Your task to perform on an android device: open app "Mercado Libre" (install if not already installed) and go to login screen Image 0: 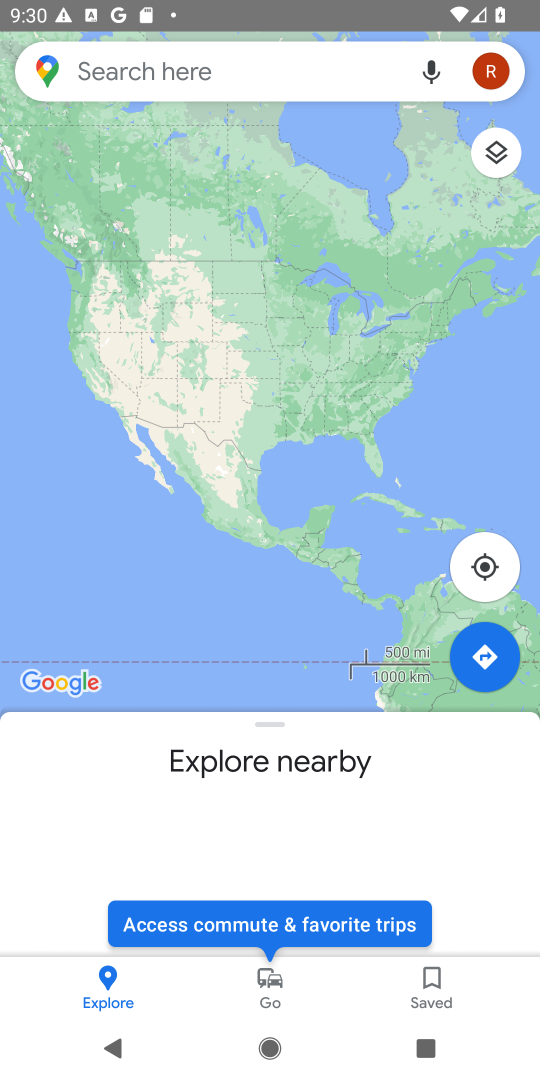
Step 0: press home button
Your task to perform on an android device: open app "Mercado Libre" (install if not already installed) and go to login screen Image 1: 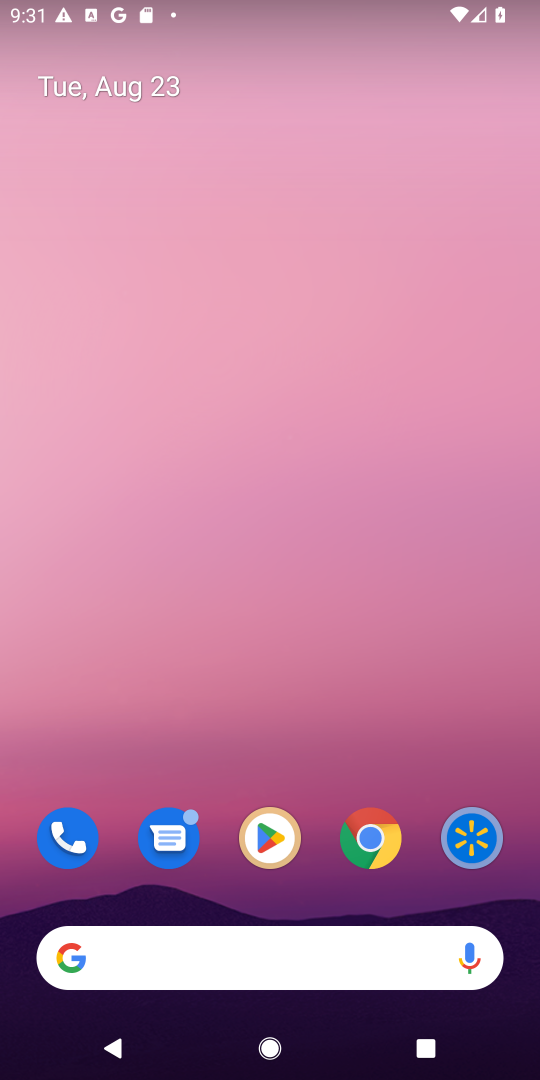
Step 1: click (266, 817)
Your task to perform on an android device: open app "Mercado Libre" (install if not already installed) and go to login screen Image 2: 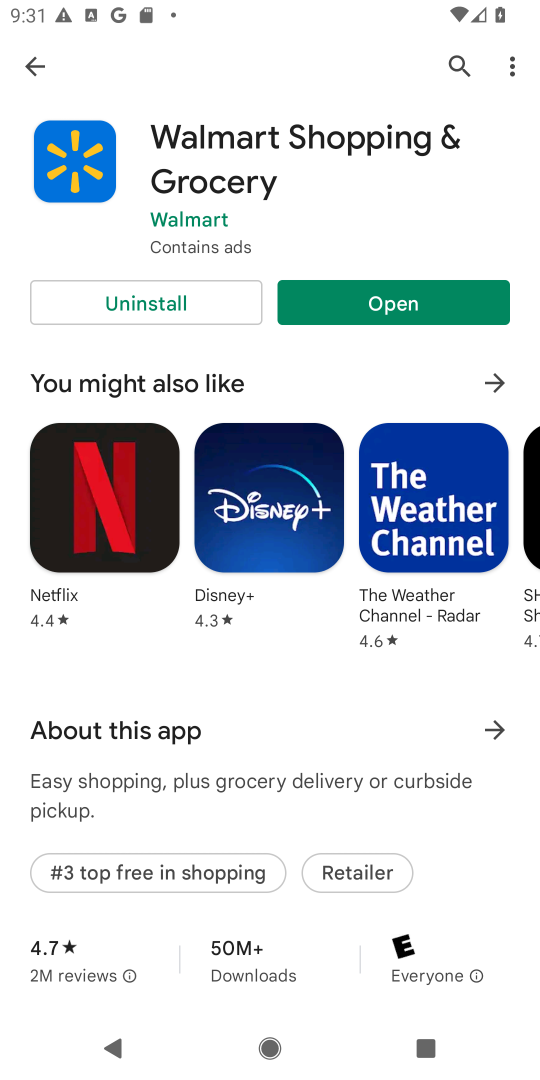
Step 2: click (471, 57)
Your task to perform on an android device: open app "Mercado Libre" (install if not already installed) and go to login screen Image 3: 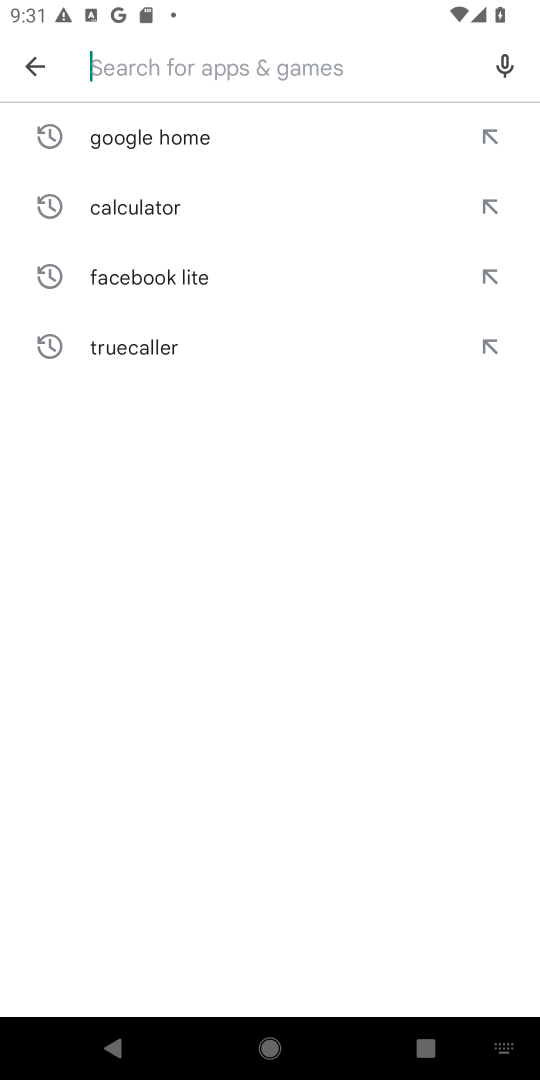
Step 3: type "Mercado Libre"
Your task to perform on an android device: open app "Mercado Libre" (install if not already installed) and go to login screen Image 4: 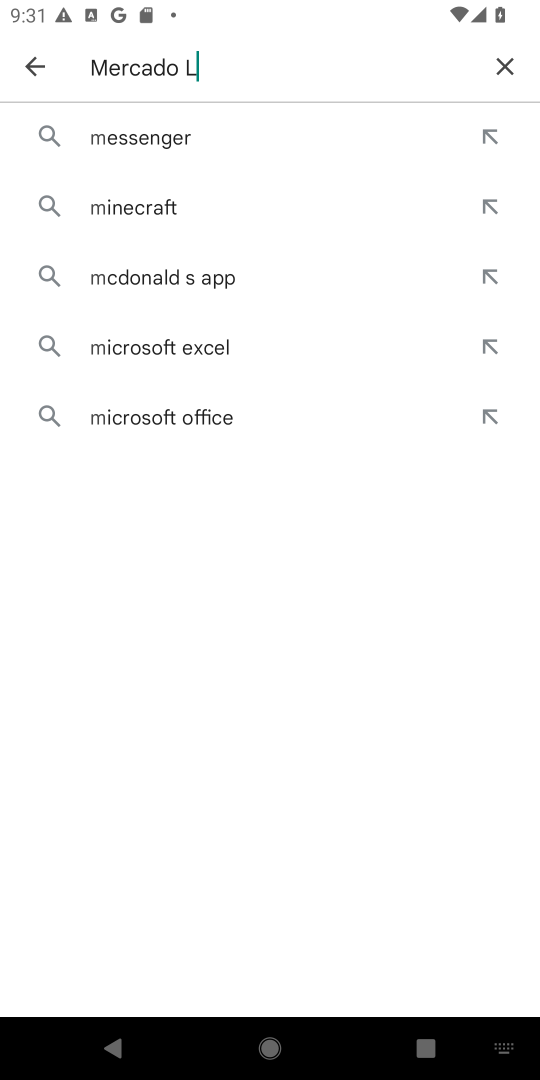
Step 4: type ""
Your task to perform on an android device: open app "Mercado Libre" (install if not already installed) and go to login screen Image 5: 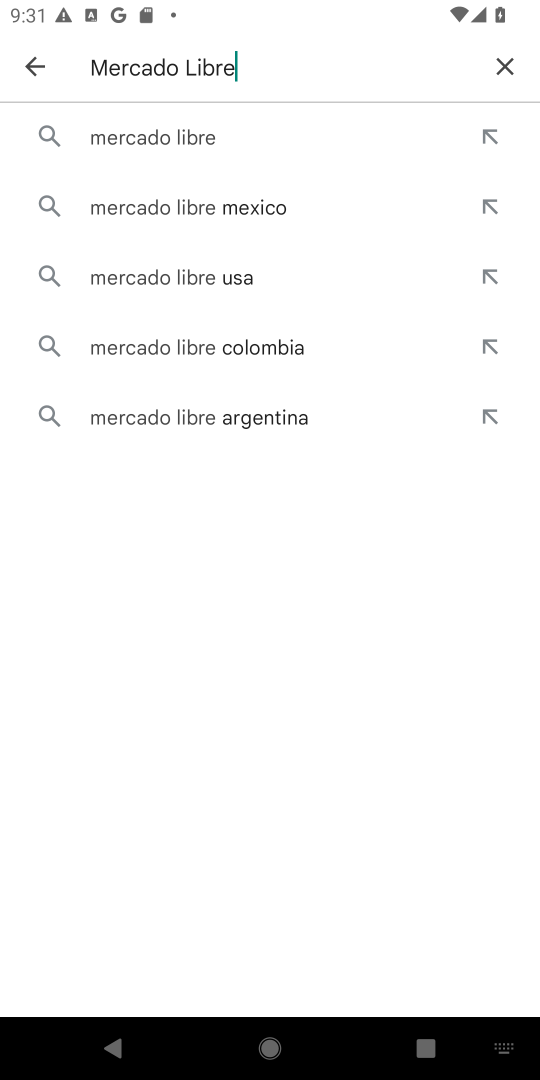
Step 5: click (282, 128)
Your task to perform on an android device: open app "Mercado Libre" (install if not already installed) and go to login screen Image 6: 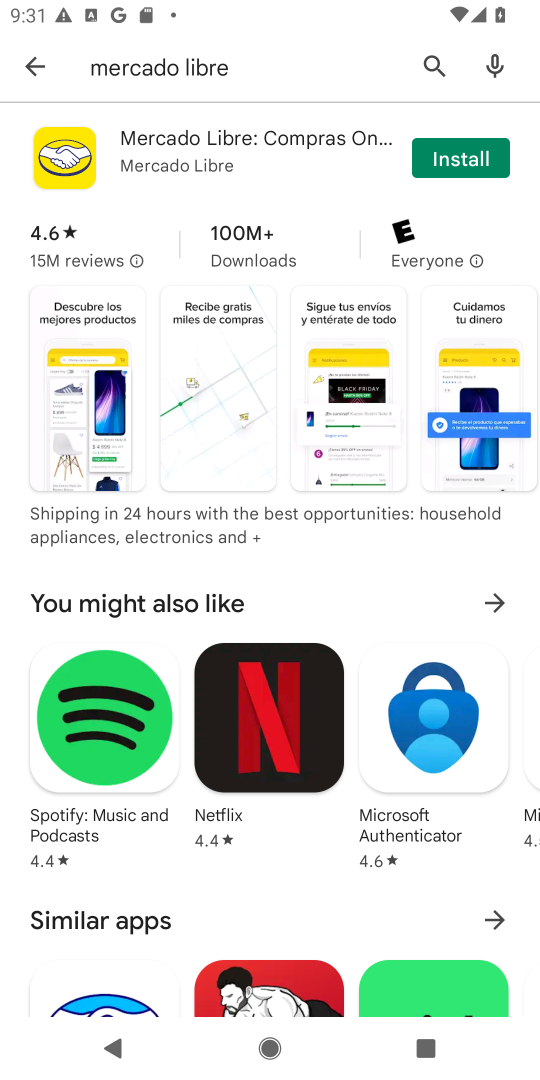
Step 6: click (456, 153)
Your task to perform on an android device: open app "Mercado Libre" (install if not already installed) and go to login screen Image 7: 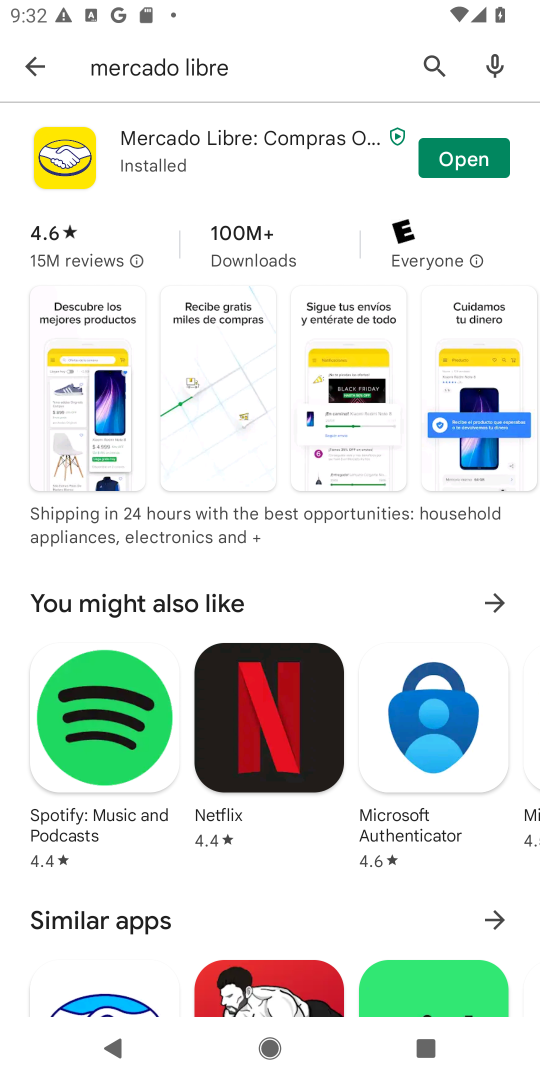
Step 7: click (444, 167)
Your task to perform on an android device: open app "Mercado Libre" (install if not already installed) and go to login screen Image 8: 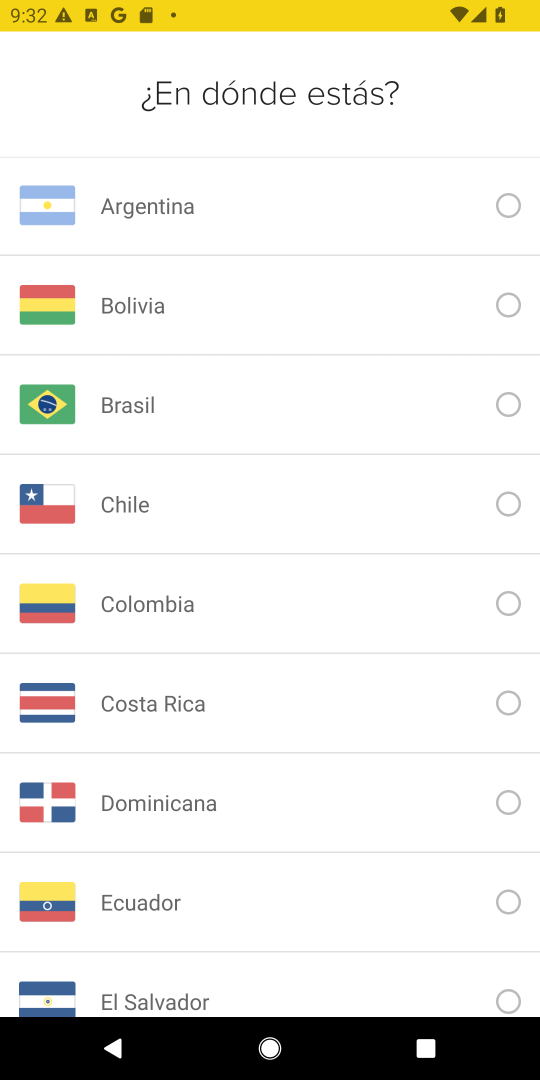
Step 8: task complete